Your task to perform on an android device: Show me productivity apps on the Play Store Image 0: 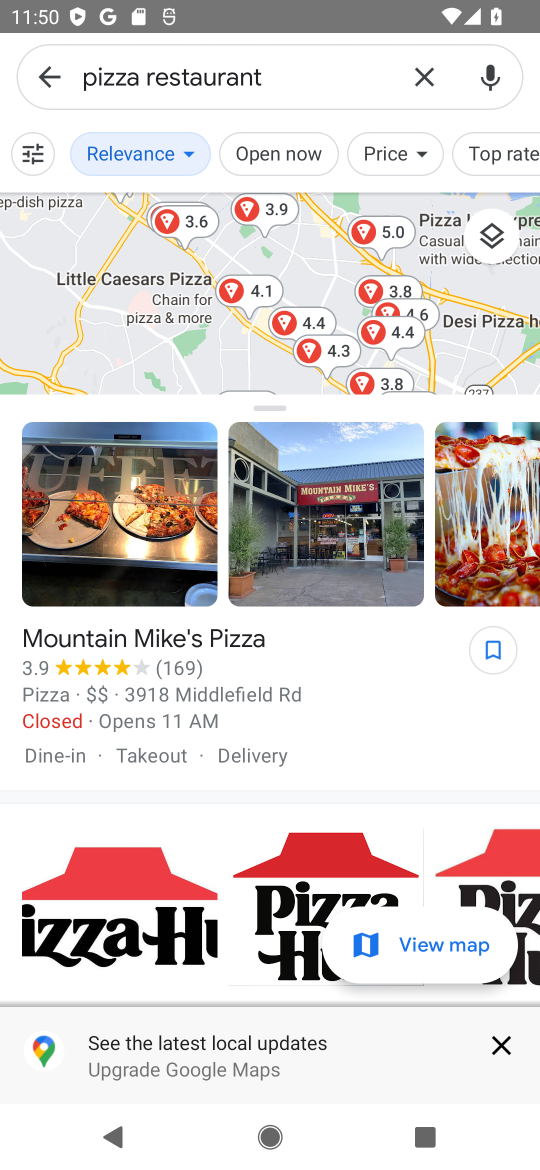
Step 0: press home button
Your task to perform on an android device: Show me productivity apps on the Play Store Image 1: 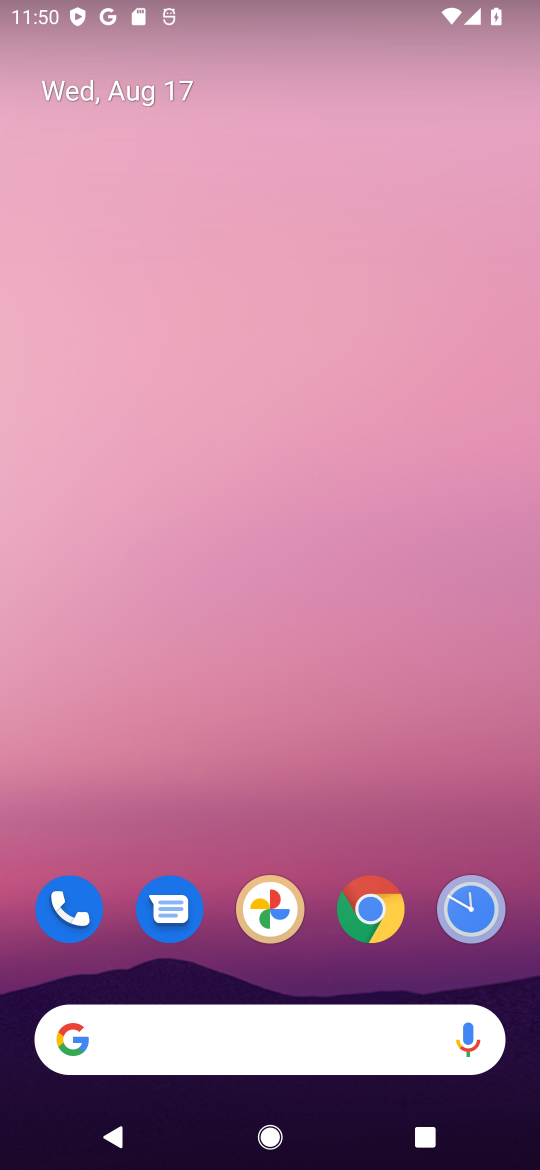
Step 1: drag from (274, 817) to (336, 12)
Your task to perform on an android device: Show me productivity apps on the Play Store Image 2: 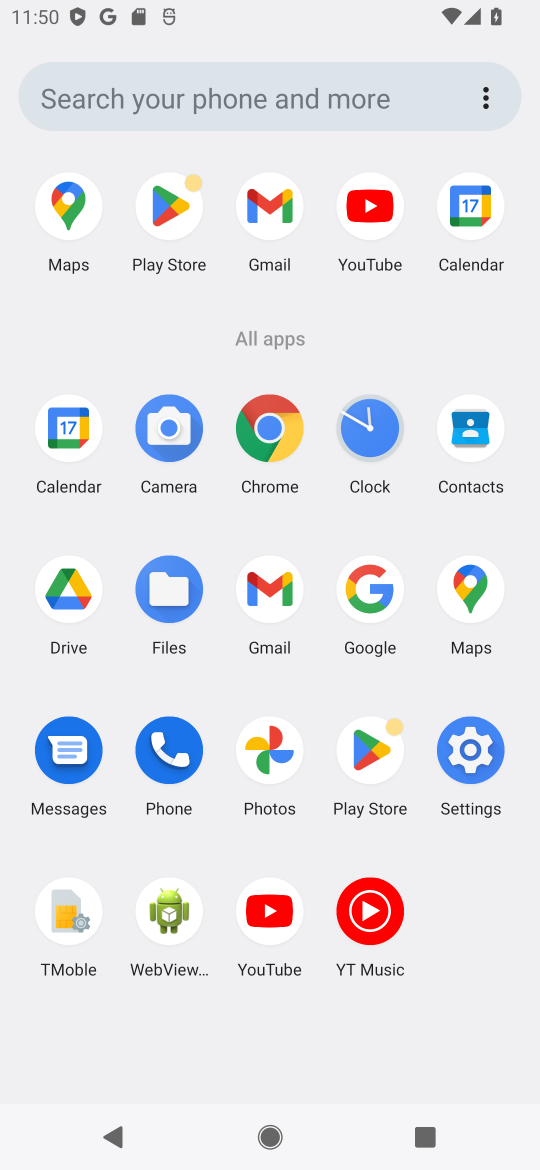
Step 2: click (367, 745)
Your task to perform on an android device: Show me productivity apps on the Play Store Image 3: 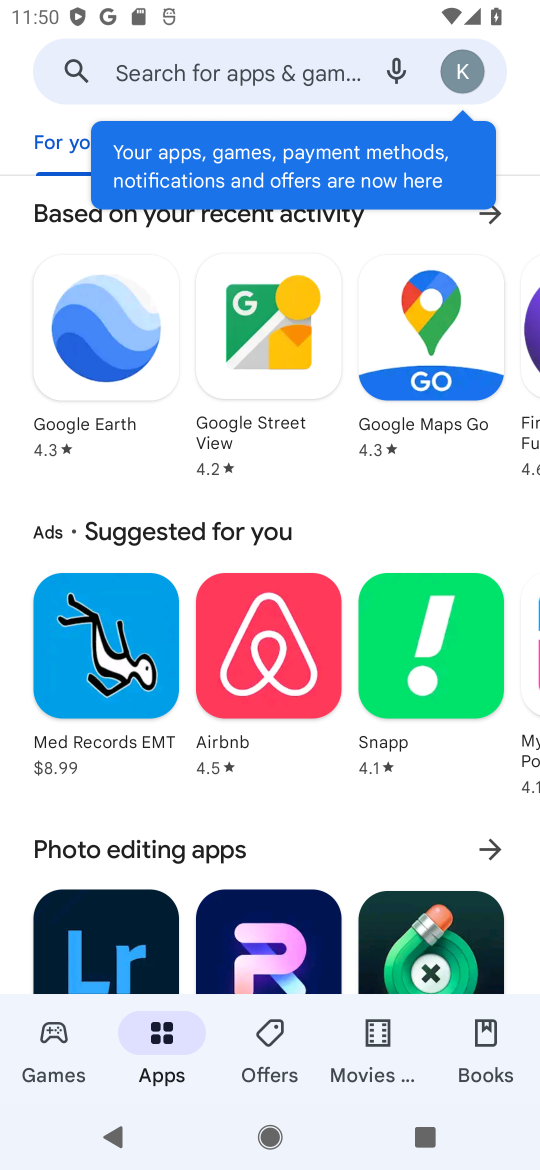
Step 3: task complete